Your task to perform on an android device: change keyboard looks Image 0: 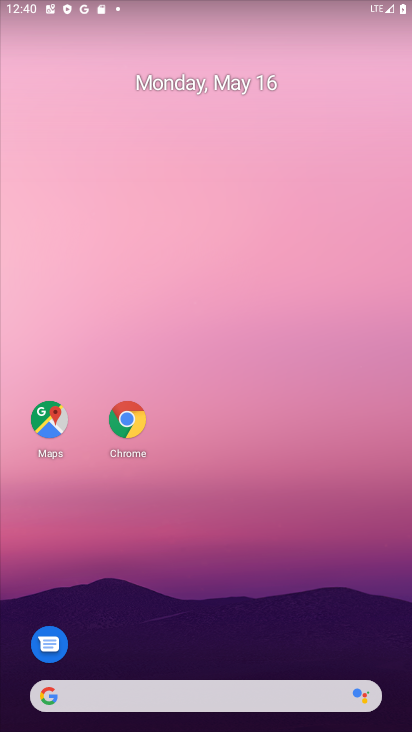
Step 0: drag from (211, 657) to (207, 53)
Your task to perform on an android device: change keyboard looks Image 1: 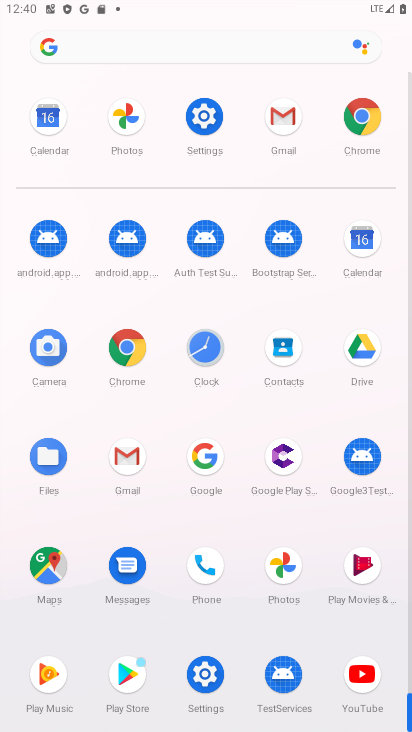
Step 1: click (213, 116)
Your task to perform on an android device: change keyboard looks Image 2: 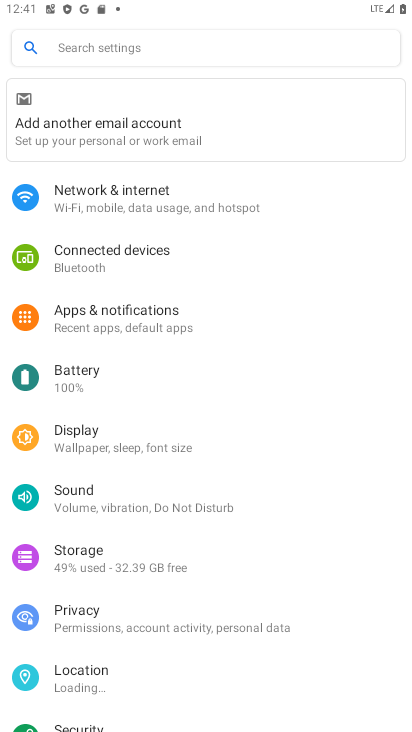
Step 2: drag from (151, 624) to (242, 23)
Your task to perform on an android device: change keyboard looks Image 3: 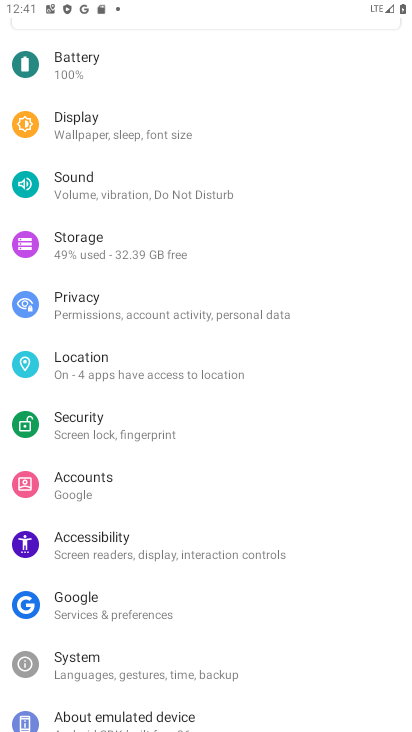
Step 3: click (91, 620)
Your task to perform on an android device: change keyboard looks Image 4: 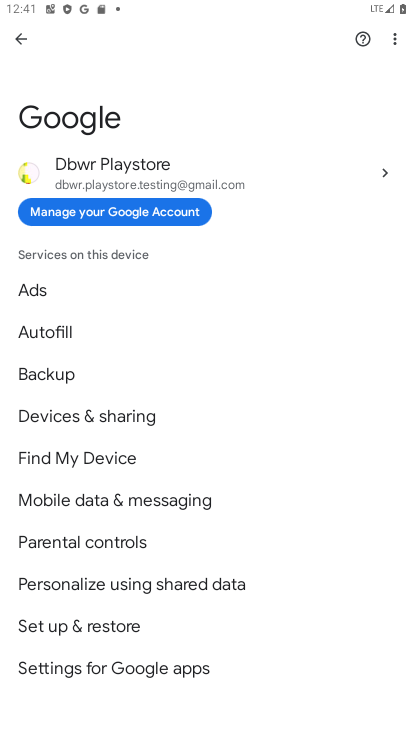
Step 4: press back button
Your task to perform on an android device: change keyboard looks Image 5: 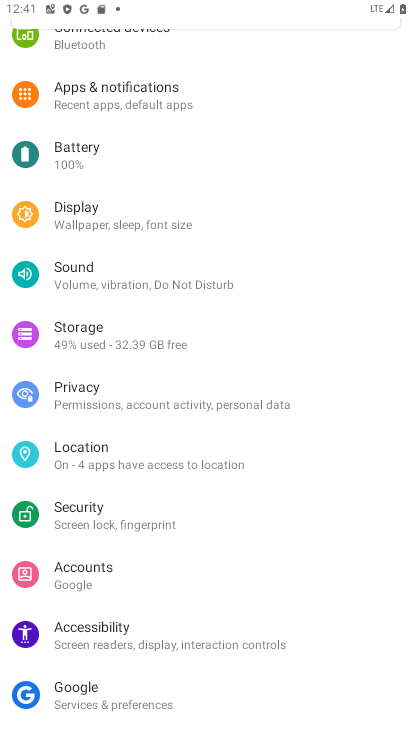
Step 5: drag from (230, 641) to (278, 42)
Your task to perform on an android device: change keyboard looks Image 6: 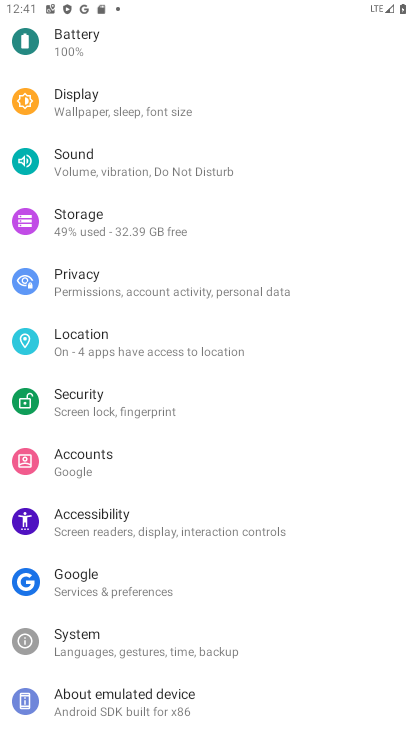
Step 6: click (90, 646)
Your task to perform on an android device: change keyboard looks Image 7: 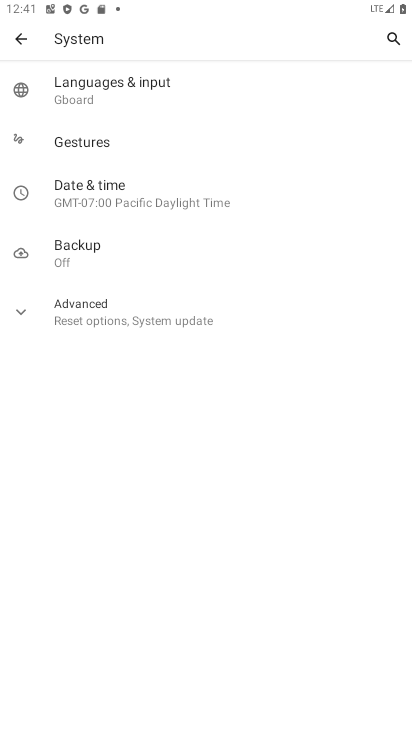
Step 7: click (111, 101)
Your task to perform on an android device: change keyboard looks Image 8: 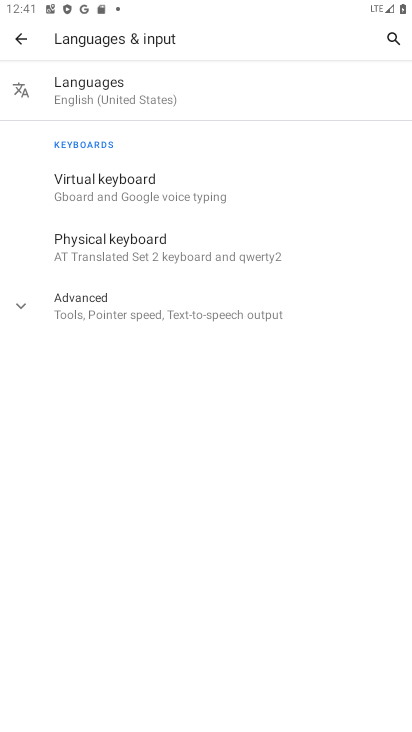
Step 8: click (118, 179)
Your task to perform on an android device: change keyboard looks Image 9: 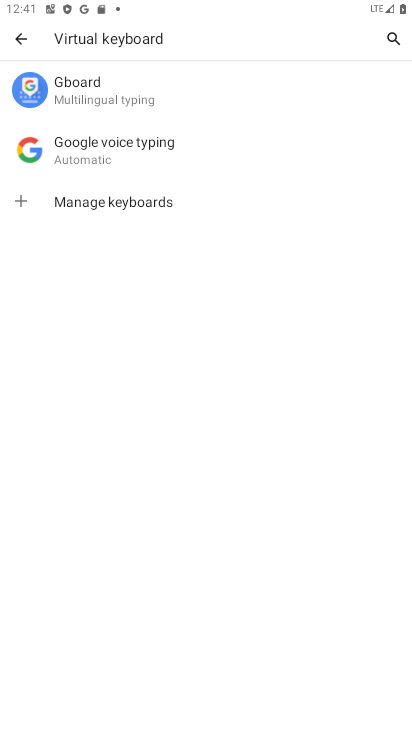
Step 9: click (229, 95)
Your task to perform on an android device: change keyboard looks Image 10: 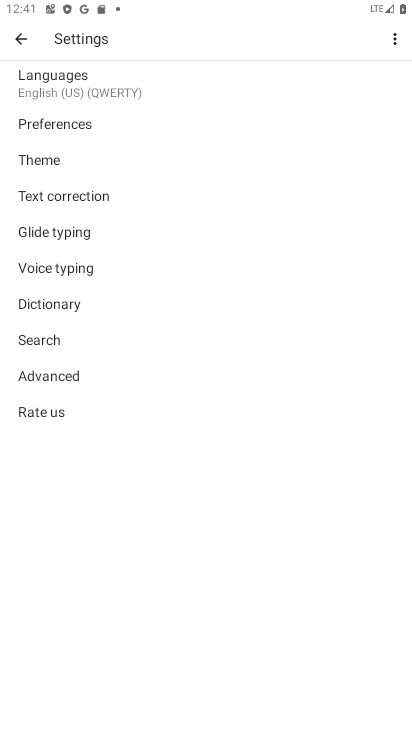
Step 10: click (59, 166)
Your task to perform on an android device: change keyboard looks Image 11: 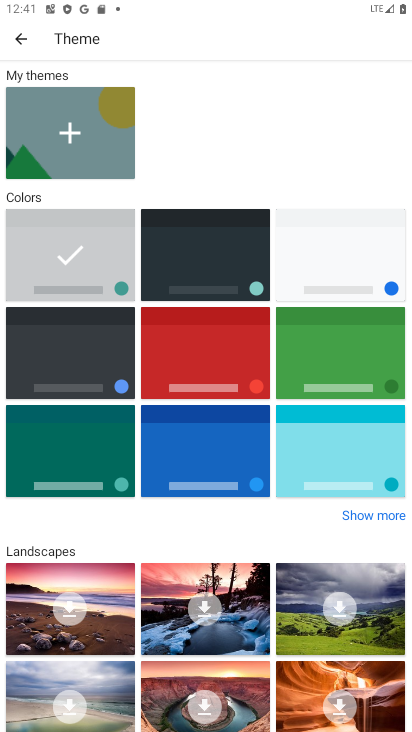
Step 11: click (192, 264)
Your task to perform on an android device: change keyboard looks Image 12: 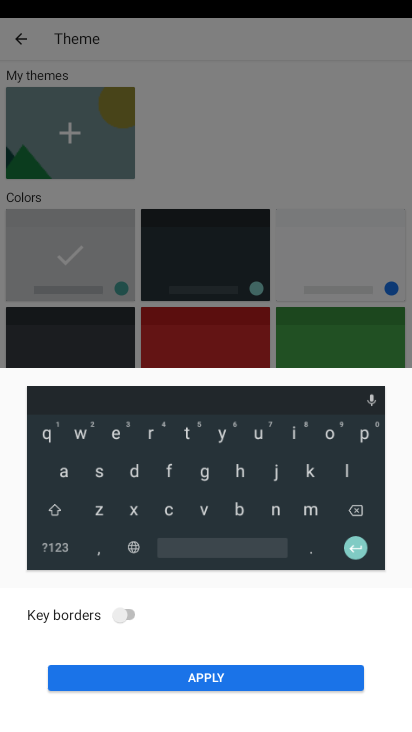
Step 12: click (232, 679)
Your task to perform on an android device: change keyboard looks Image 13: 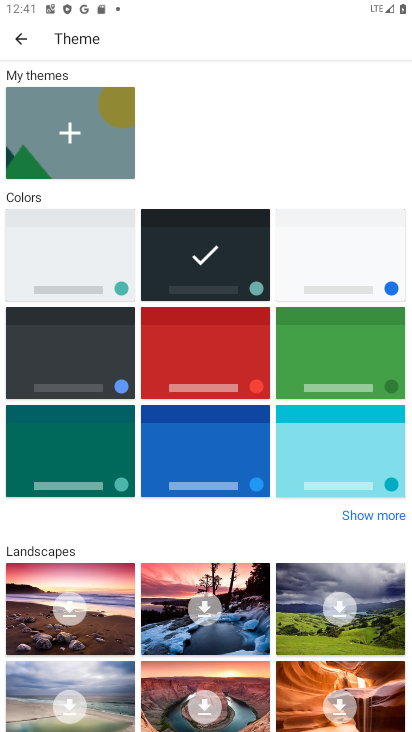
Step 13: task complete